Your task to perform on an android device: Go to location settings Image 0: 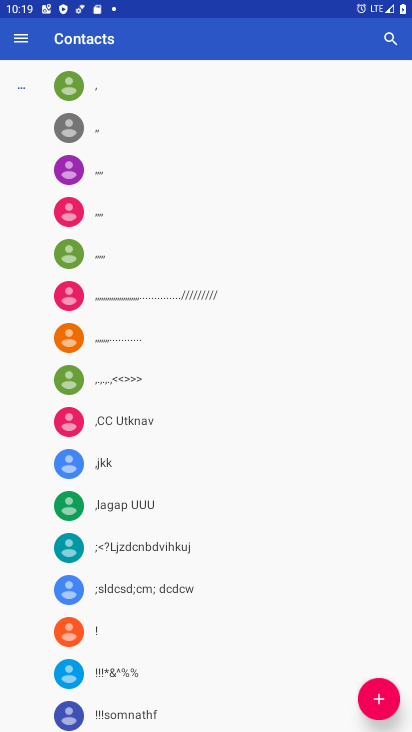
Step 0: press home button
Your task to perform on an android device: Go to location settings Image 1: 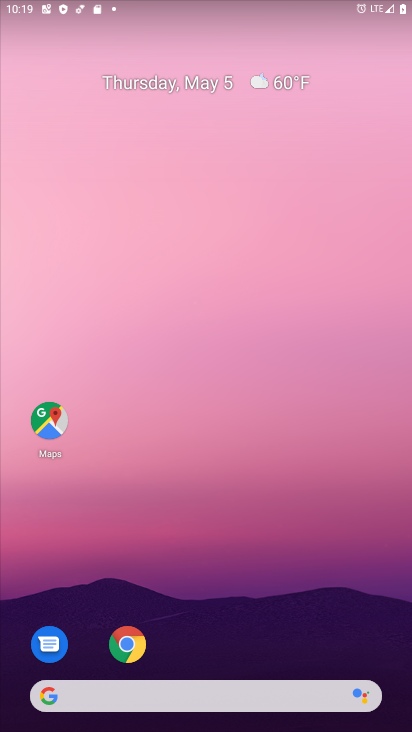
Step 1: drag from (186, 623) to (171, 190)
Your task to perform on an android device: Go to location settings Image 2: 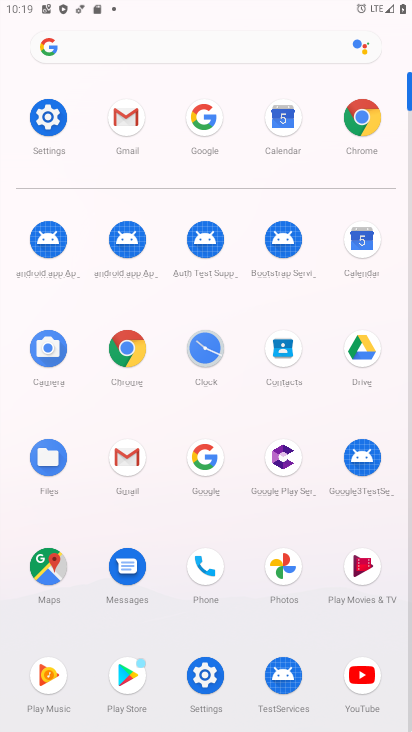
Step 2: click (204, 675)
Your task to perform on an android device: Go to location settings Image 3: 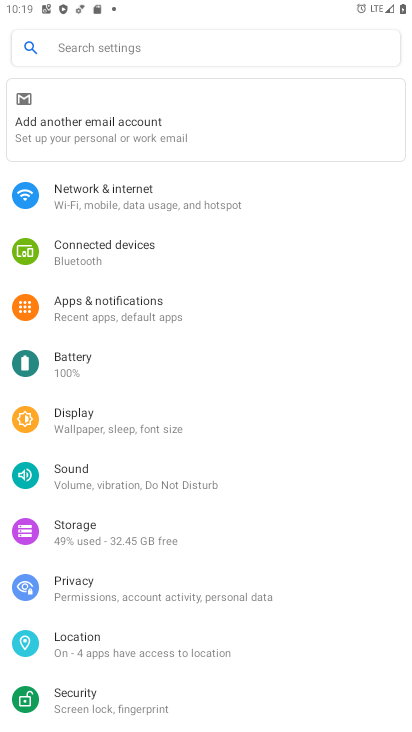
Step 3: click (171, 654)
Your task to perform on an android device: Go to location settings Image 4: 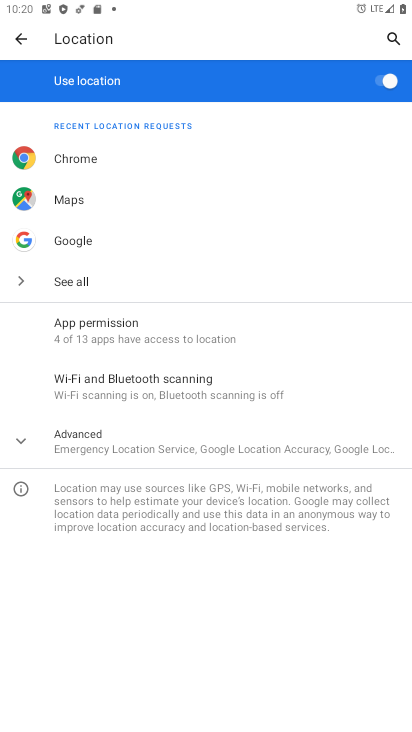
Step 4: task complete